Your task to perform on an android device: turn off wifi Image 0: 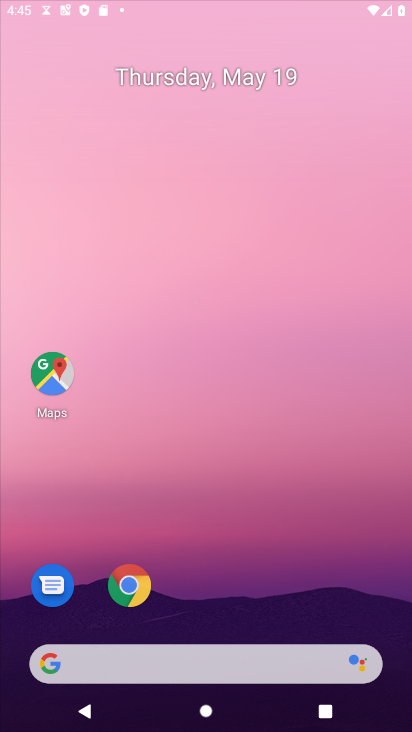
Step 0: click (393, 188)
Your task to perform on an android device: turn off wifi Image 1: 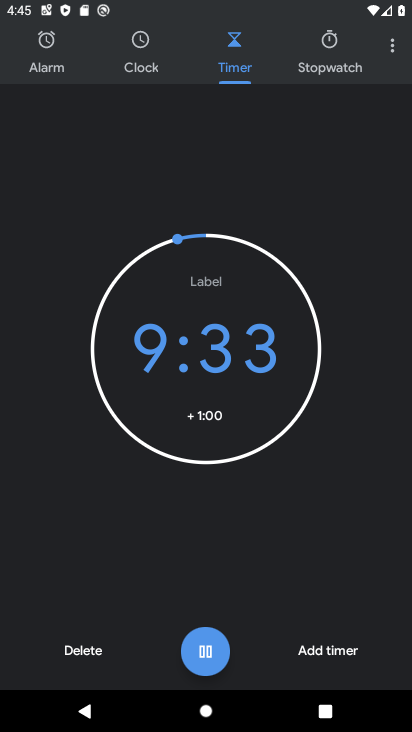
Step 1: task complete